Your task to perform on an android device: Search for corsair k70 on costco, select the first entry, add it to the cart, then select checkout. Image 0: 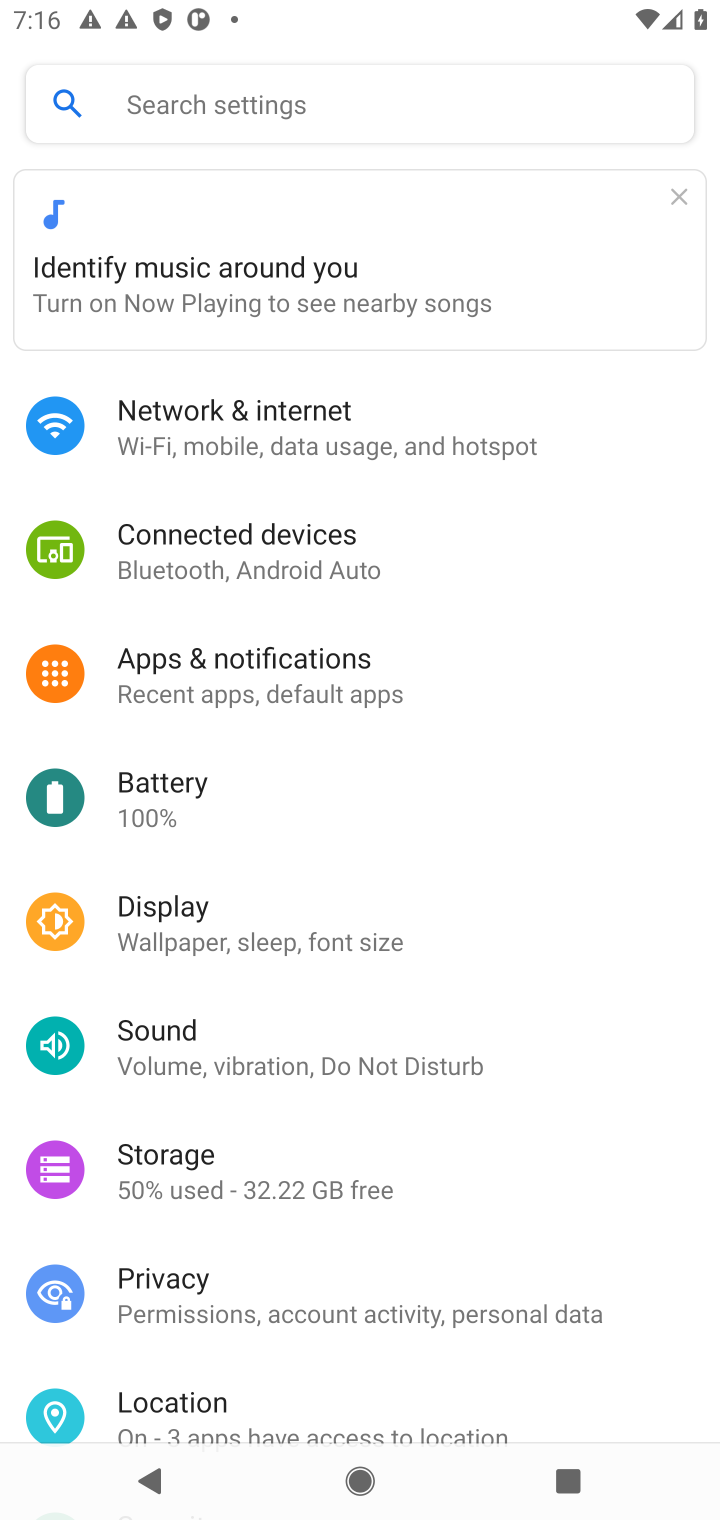
Step 0: press home button
Your task to perform on an android device: Search for corsair k70 on costco, select the first entry, add it to the cart, then select checkout. Image 1: 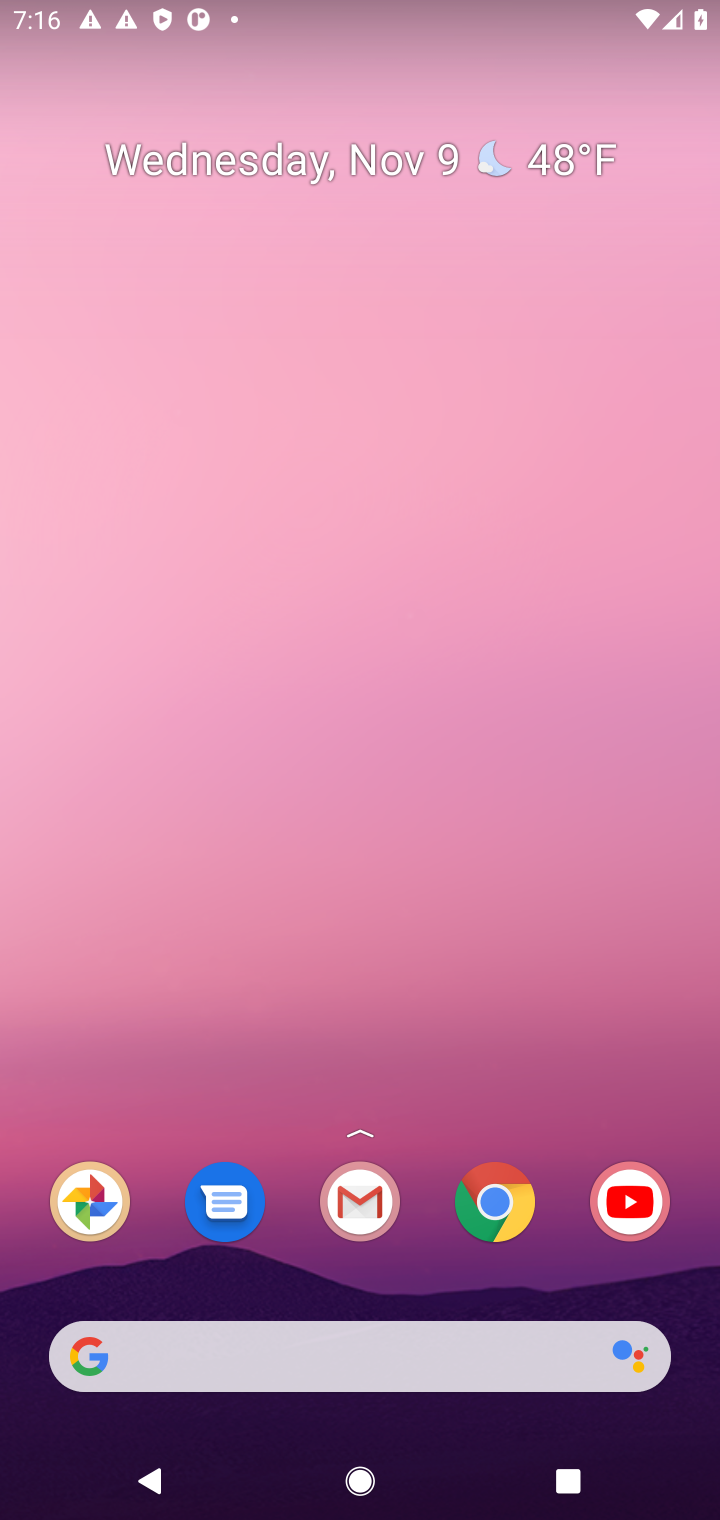
Step 1: click (512, 1210)
Your task to perform on an android device: Search for corsair k70 on costco, select the first entry, add it to the cart, then select checkout. Image 2: 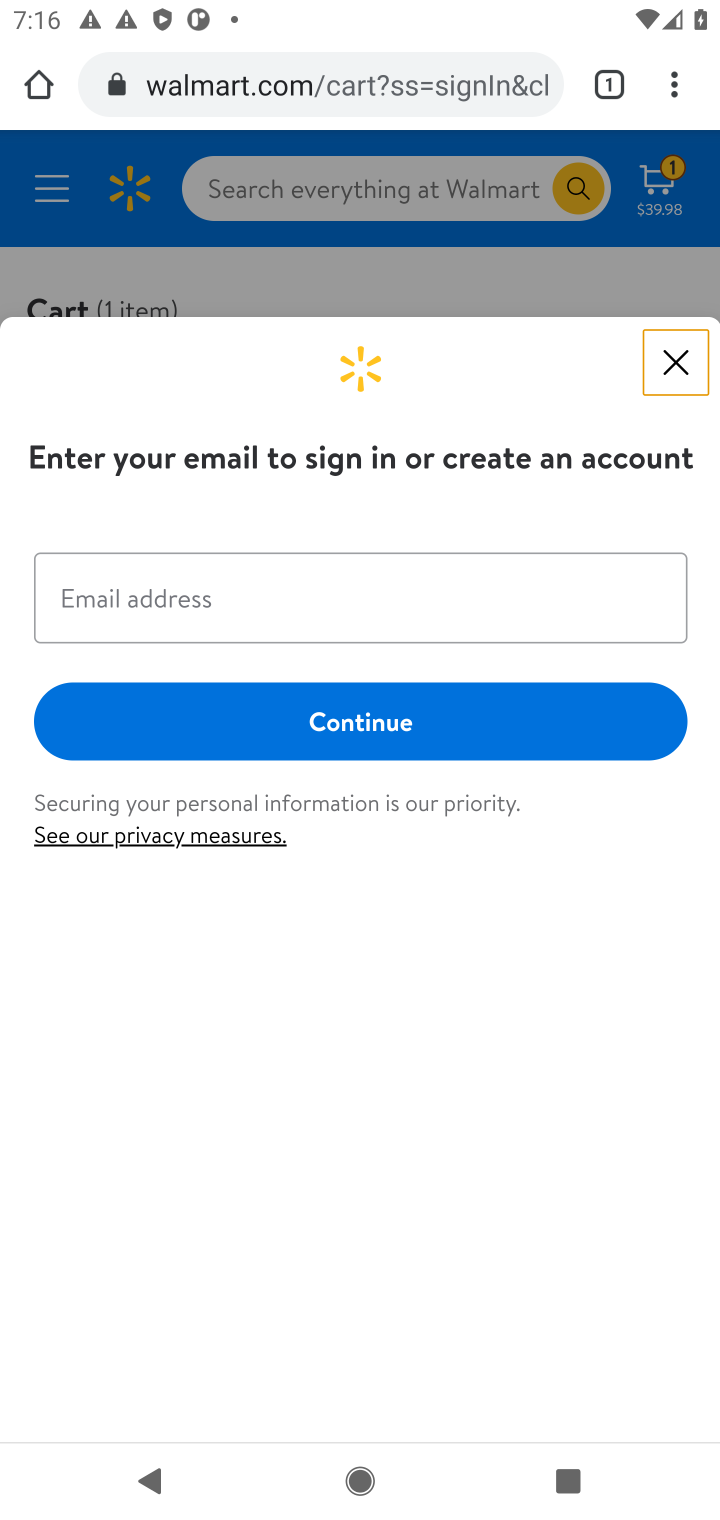
Step 2: click (398, 81)
Your task to perform on an android device: Search for corsair k70 on costco, select the first entry, add it to the cart, then select checkout. Image 3: 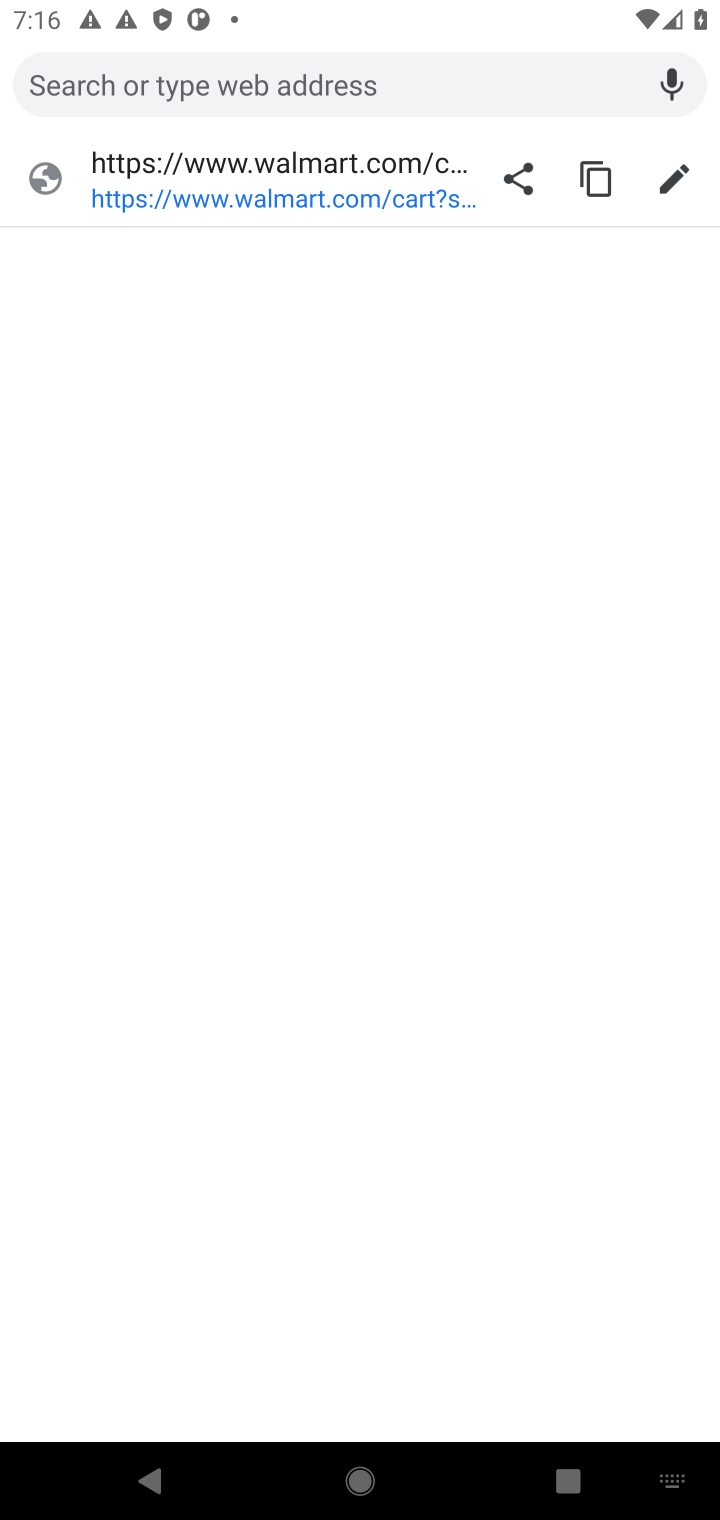
Step 3: type " costco"
Your task to perform on an android device: Search for corsair k70 on costco, select the first entry, add it to the cart, then select checkout. Image 4: 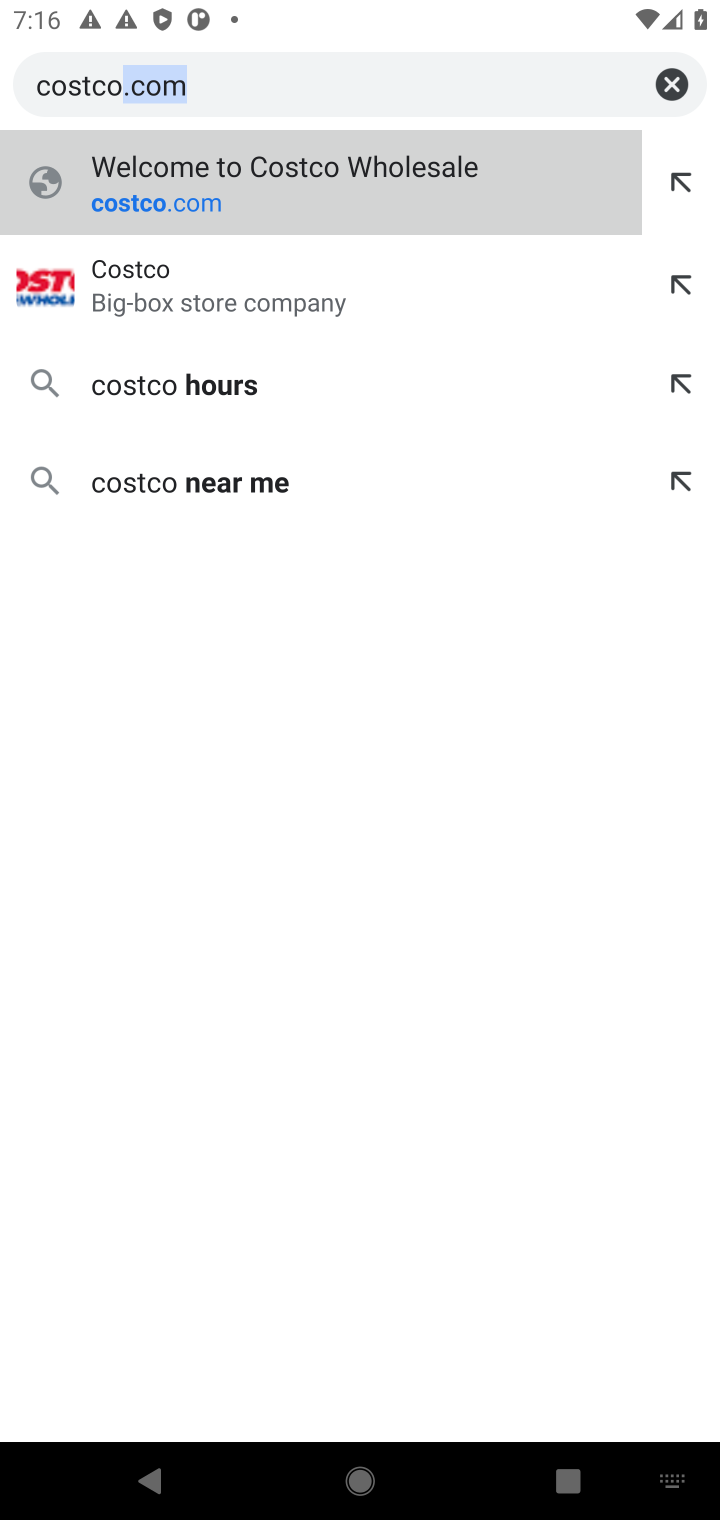
Step 4: press enter
Your task to perform on an android device: Search for corsair k70 on costco, select the first entry, add it to the cart, then select checkout. Image 5: 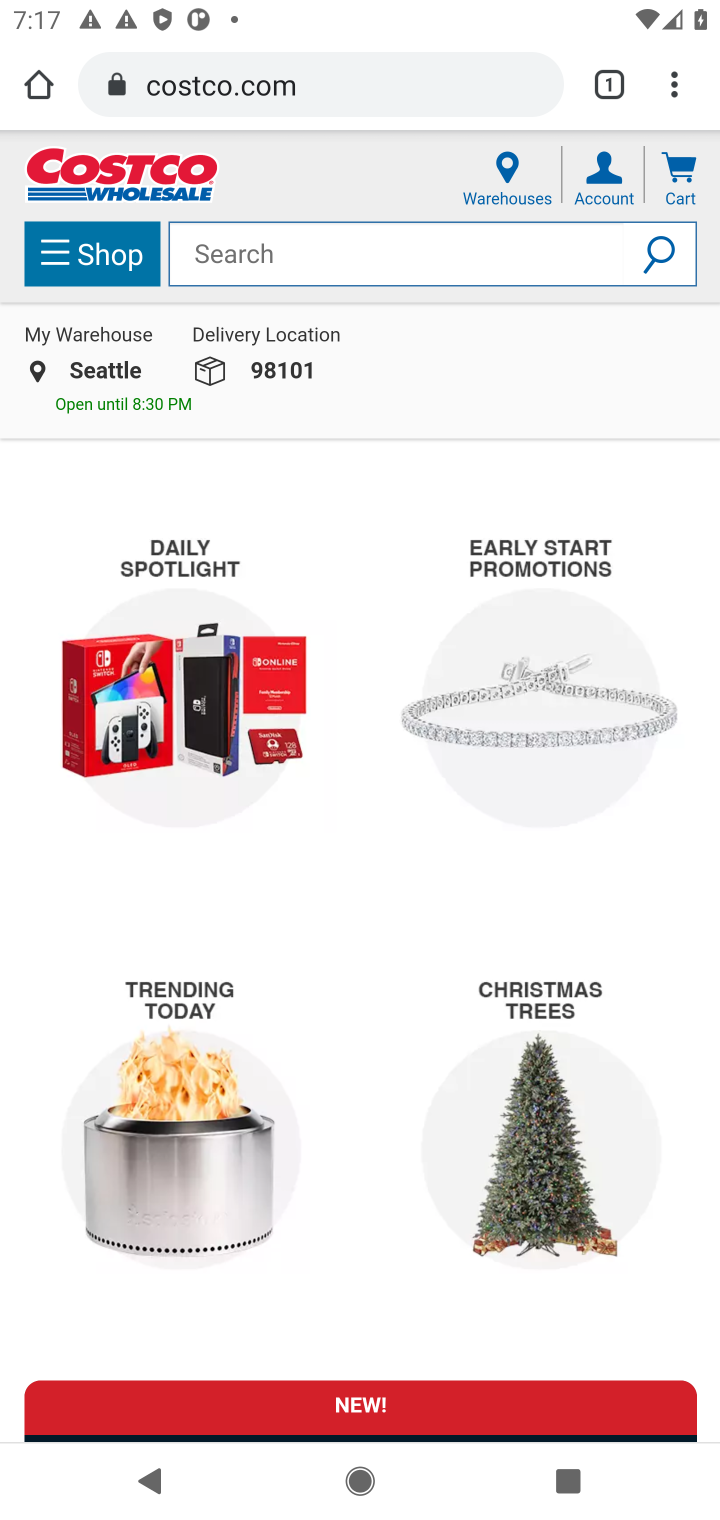
Step 5: click (370, 248)
Your task to perform on an android device: Search for corsair k70 on costco, select the first entry, add it to the cart, then select checkout. Image 6: 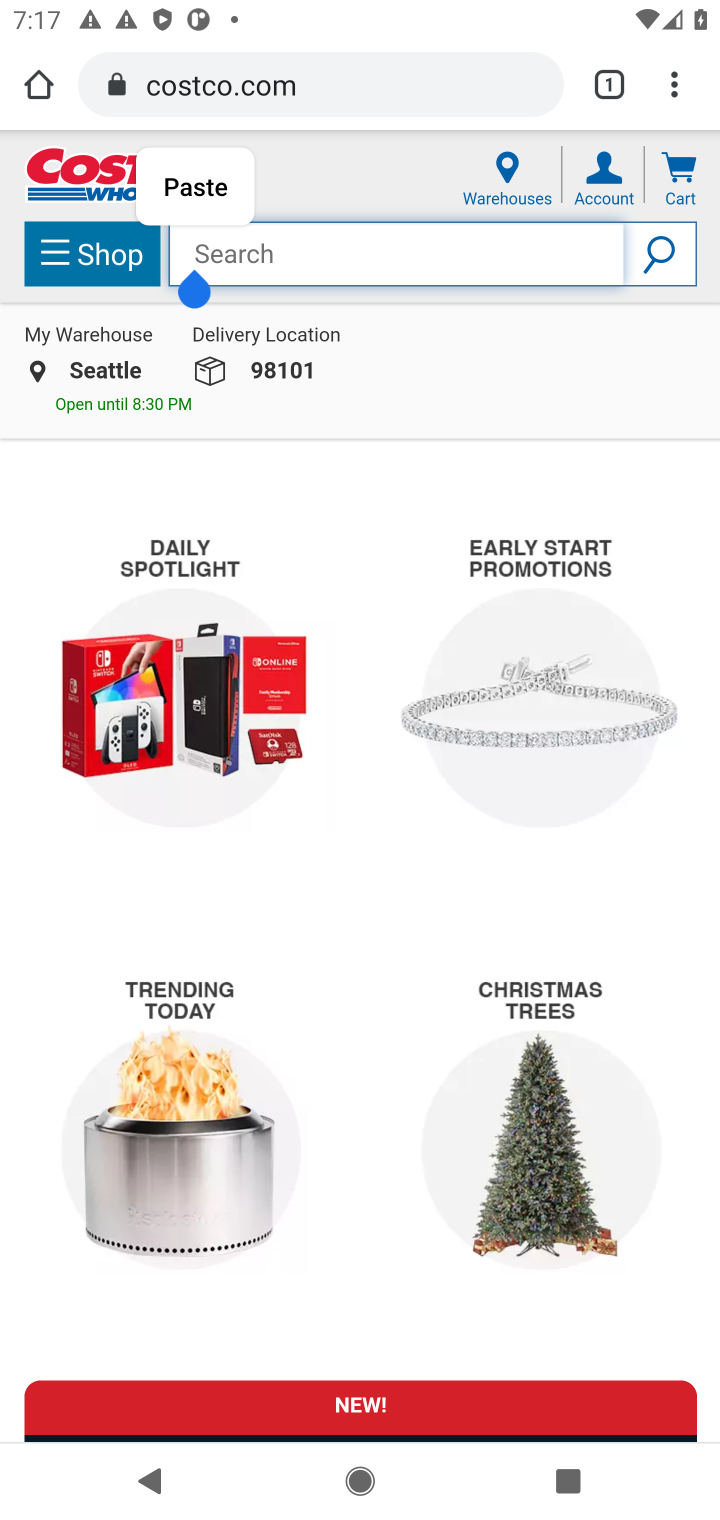
Step 6: click (236, 257)
Your task to perform on an android device: Search for corsair k70 on costco, select the first entry, add it to the cart, then select checkout. Image 7: 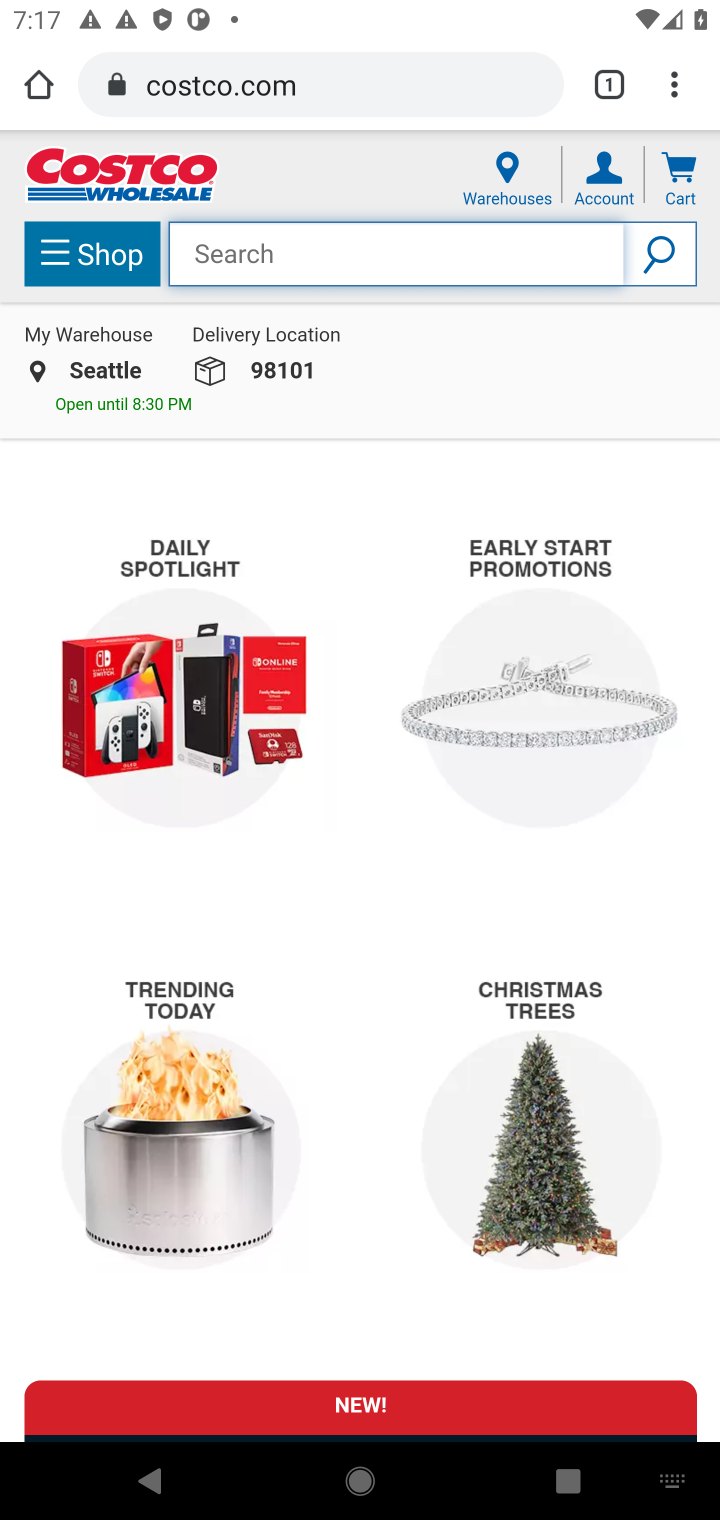
Step 7: type "corsair k70"
Your task to perform on an android device: Search for corsair k70 on costco, select the first entry, add it to the cart, then select checkout. Image 8: 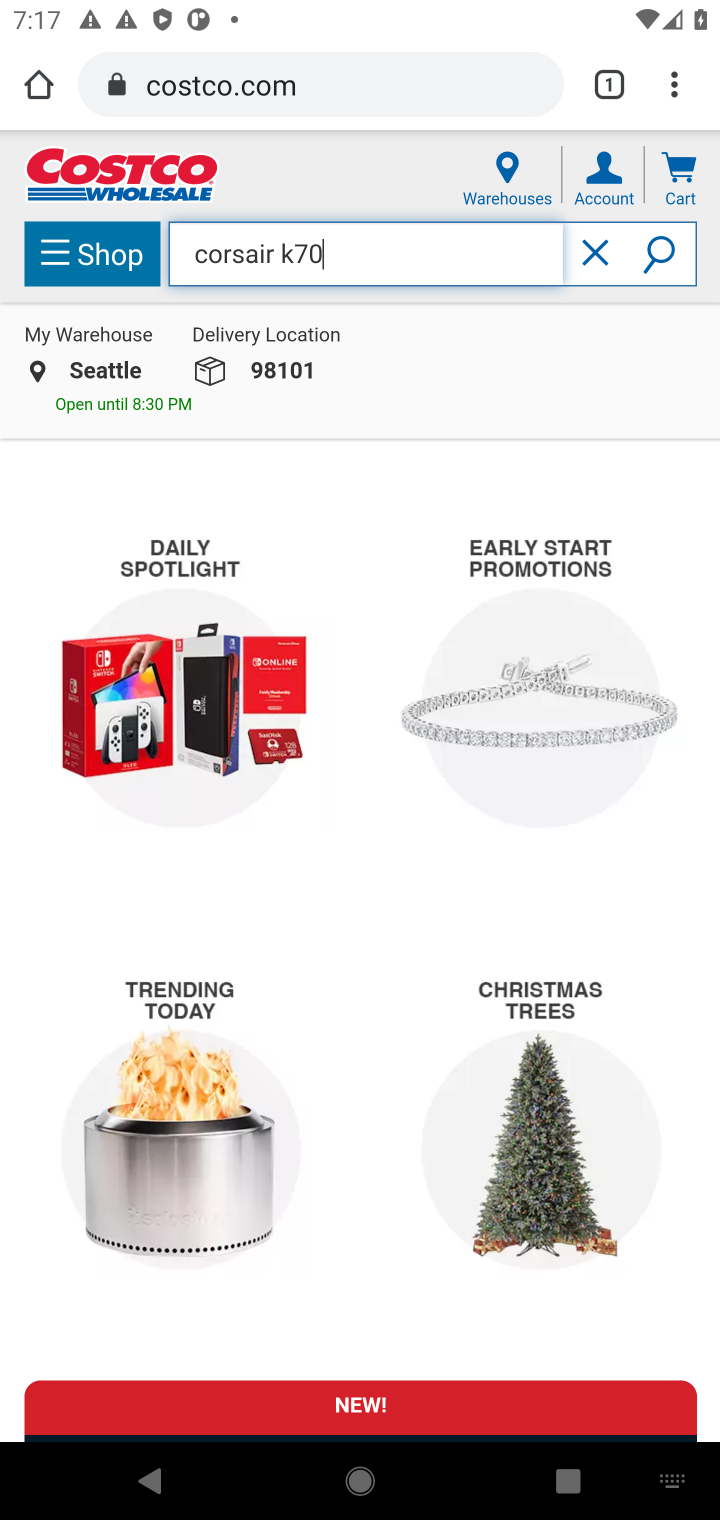
Step 8: press enter
Your task to perform on an android device: Search for corsair k70 on costco, select the first entry, add it to the cart, then select checkout. Image 9: 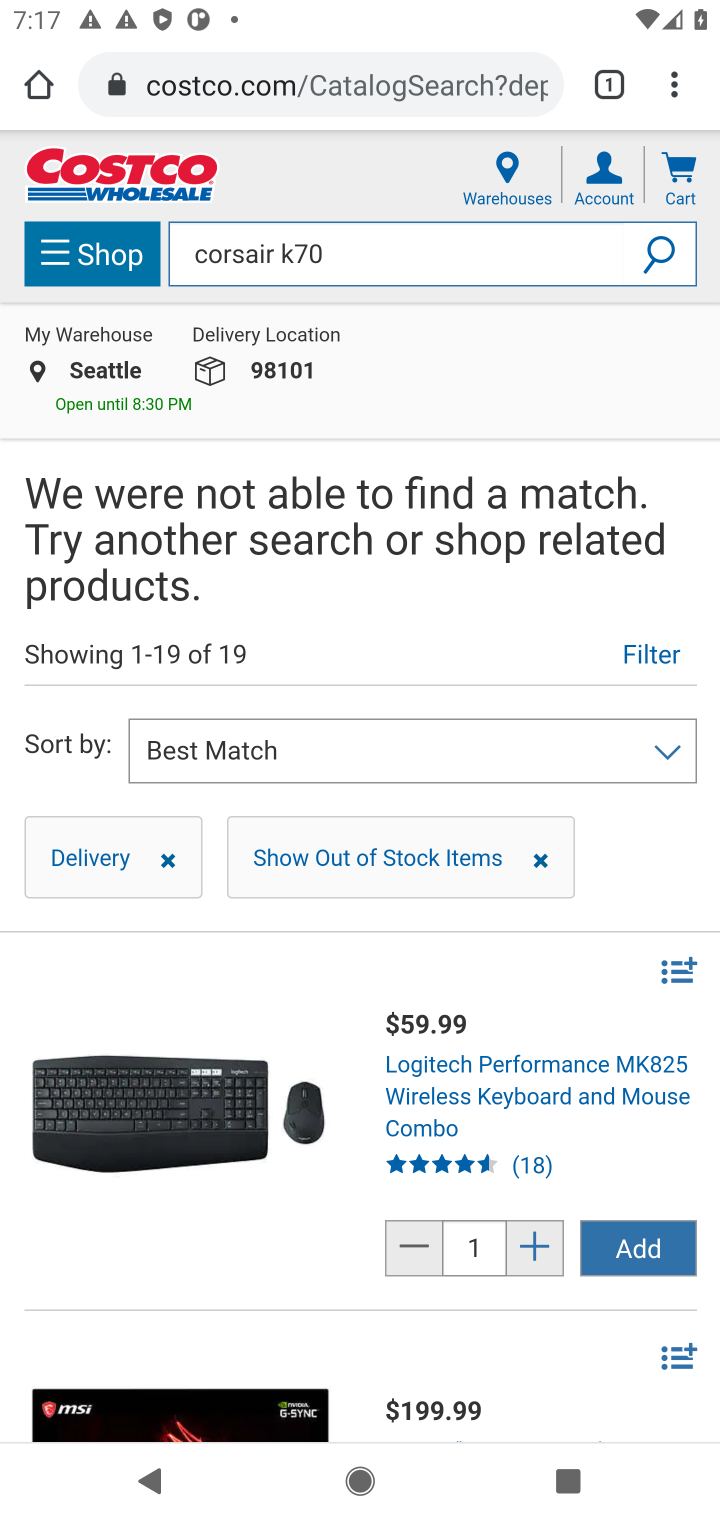
Step 9: task complete